Your task to perform on an android device: turn smart compose on in the gmail app Image 0: 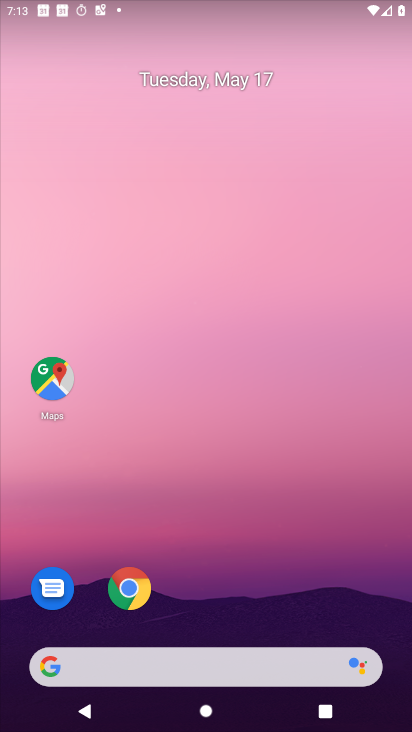
Step 0: drag from (260, 592) to (147, 132)
Your task to perform on an android device: turn smart compose on in the gmail app Image 1: 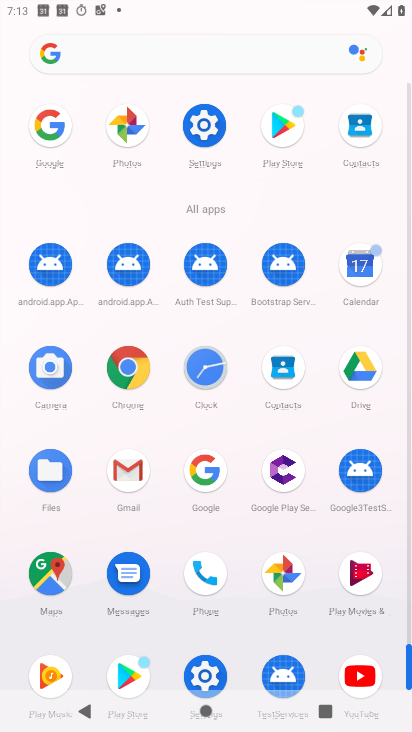
Step 1: click (126, 471)
Your task to perform on an android device: turn smart compose on in the gmail app Image 2: 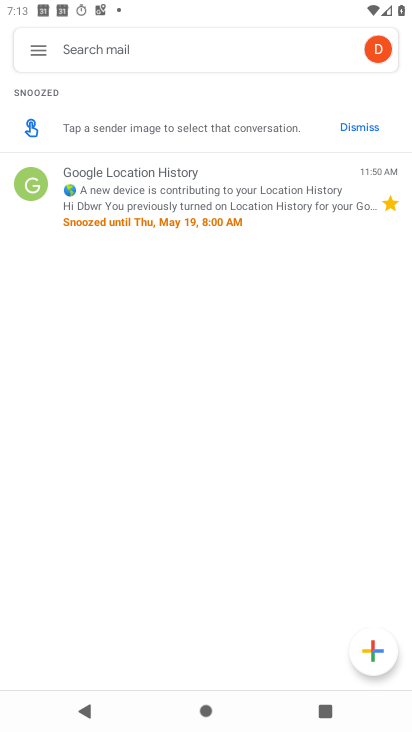
Step 2: click (30, 51)
Your task to perform on an android device: turn smart compose on in the gmail app Image 3: 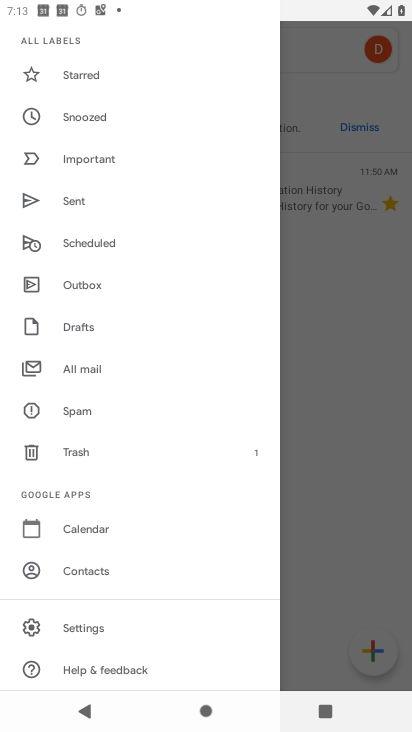
Step 3: drag from (75, 427) to (91, 350)
Your task to perform on an android device: turn smart compose on in the gmail app Image 4: 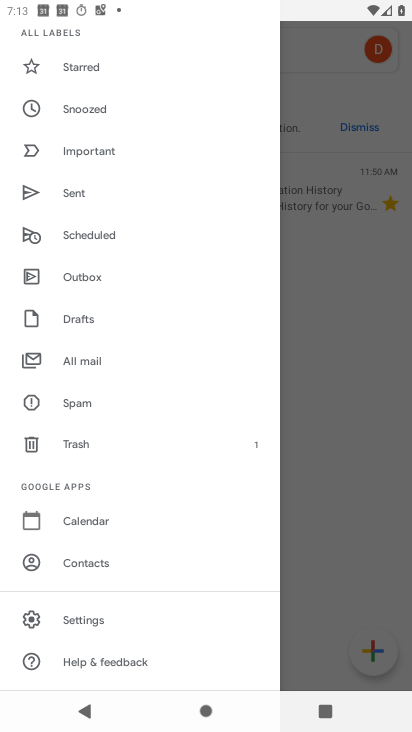
Step 4: click (94, 620)
Your task to perform on an android device: turn smart compose on in the gmail app Image 5: 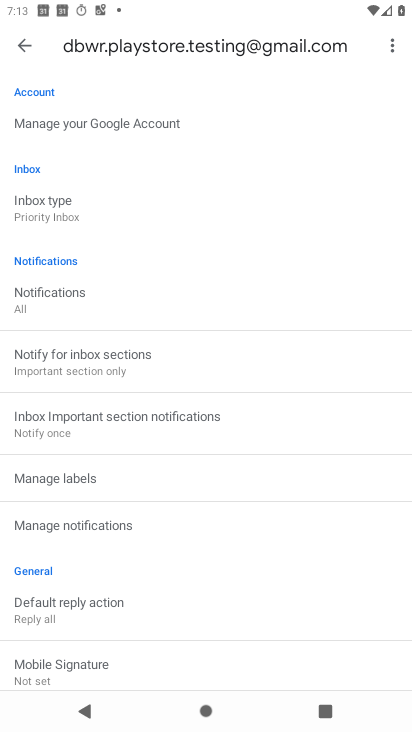
Step 5: task complete